Your task to perform on an android device: Search for flights from NYC to Barcelona Image 0: 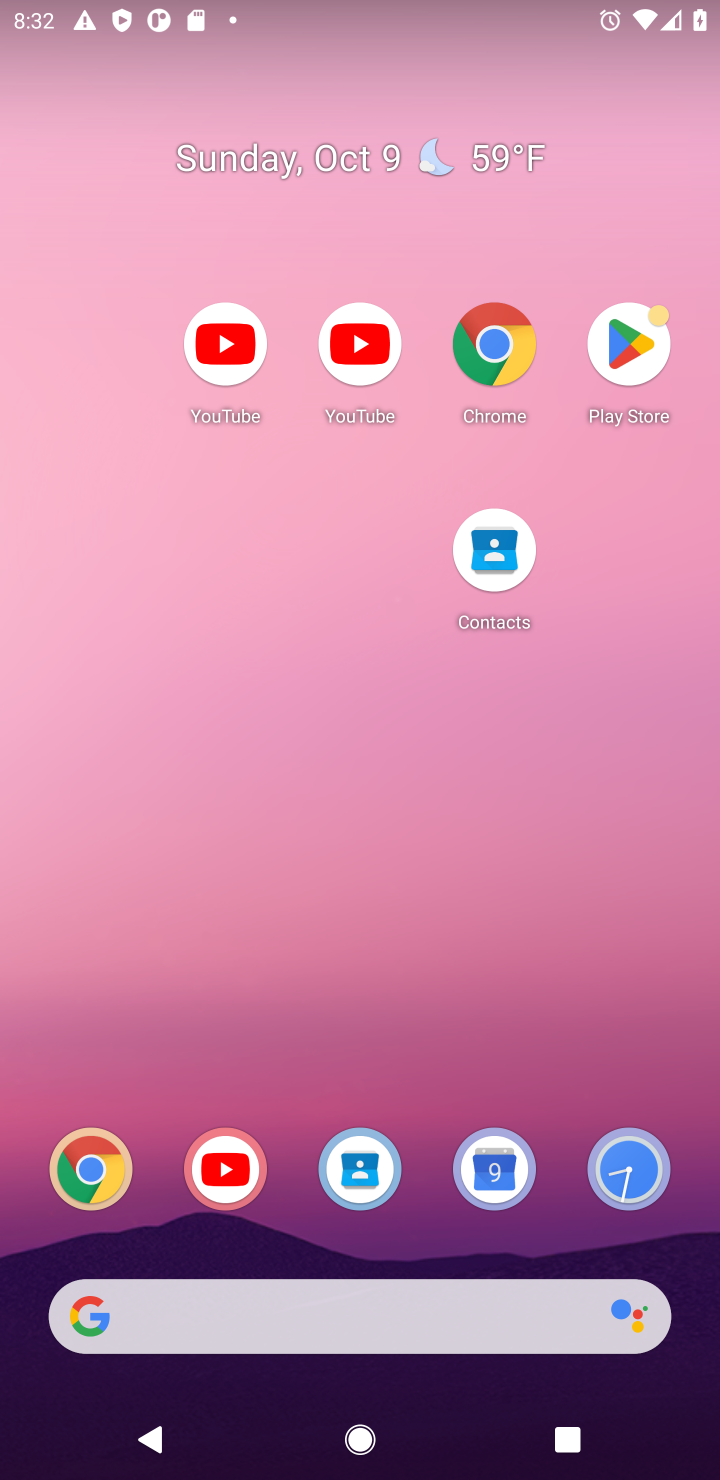
Step 0: drag from (432, 1247) to (279, 108)
Your task to perform on an android device: Search for flights from NYC to Barcelona Image 1: 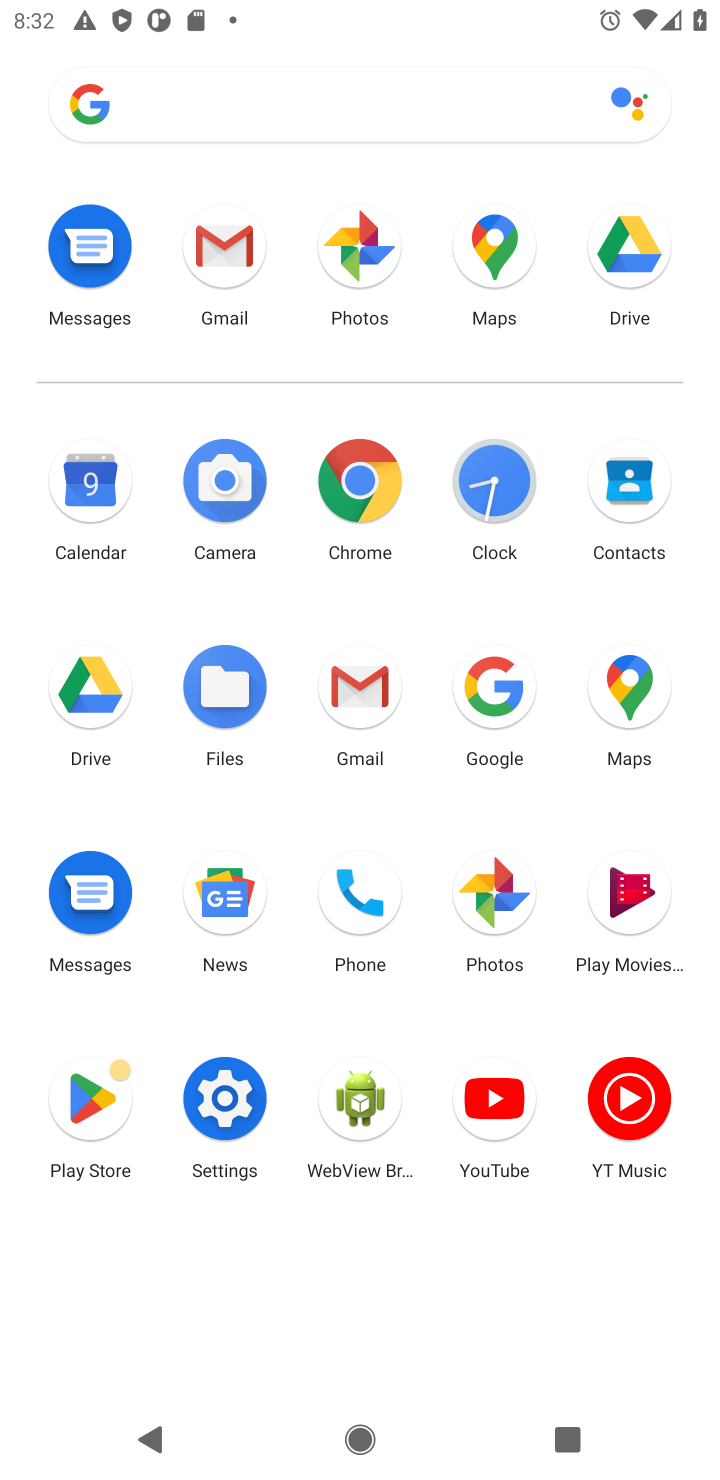
Step 1: click (357, 482)
Your task to perform on an android device: Search for flights from NYC to Barcelona Image 2: 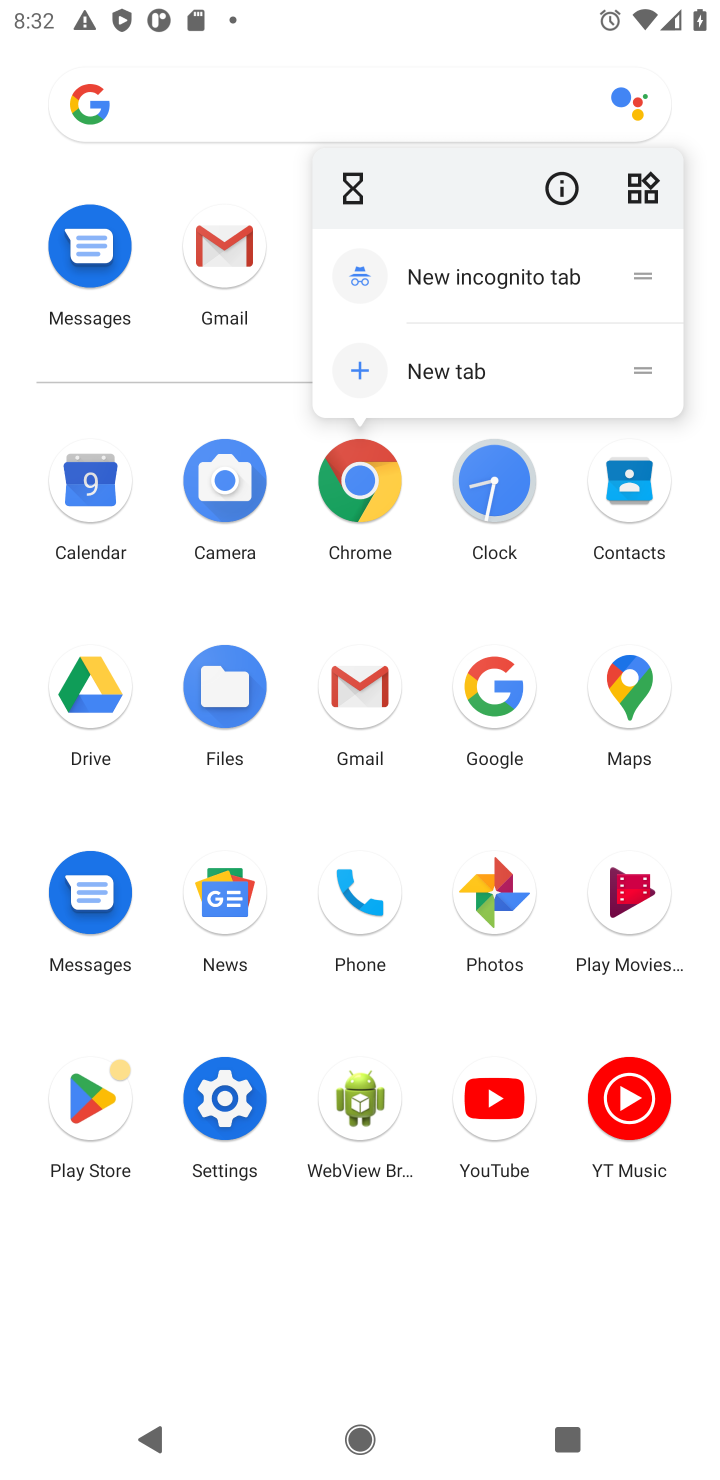
Step 2: click (357, 482)
Your task to perform on an android device: Search for flights from NYC to Barcelona Image 3: 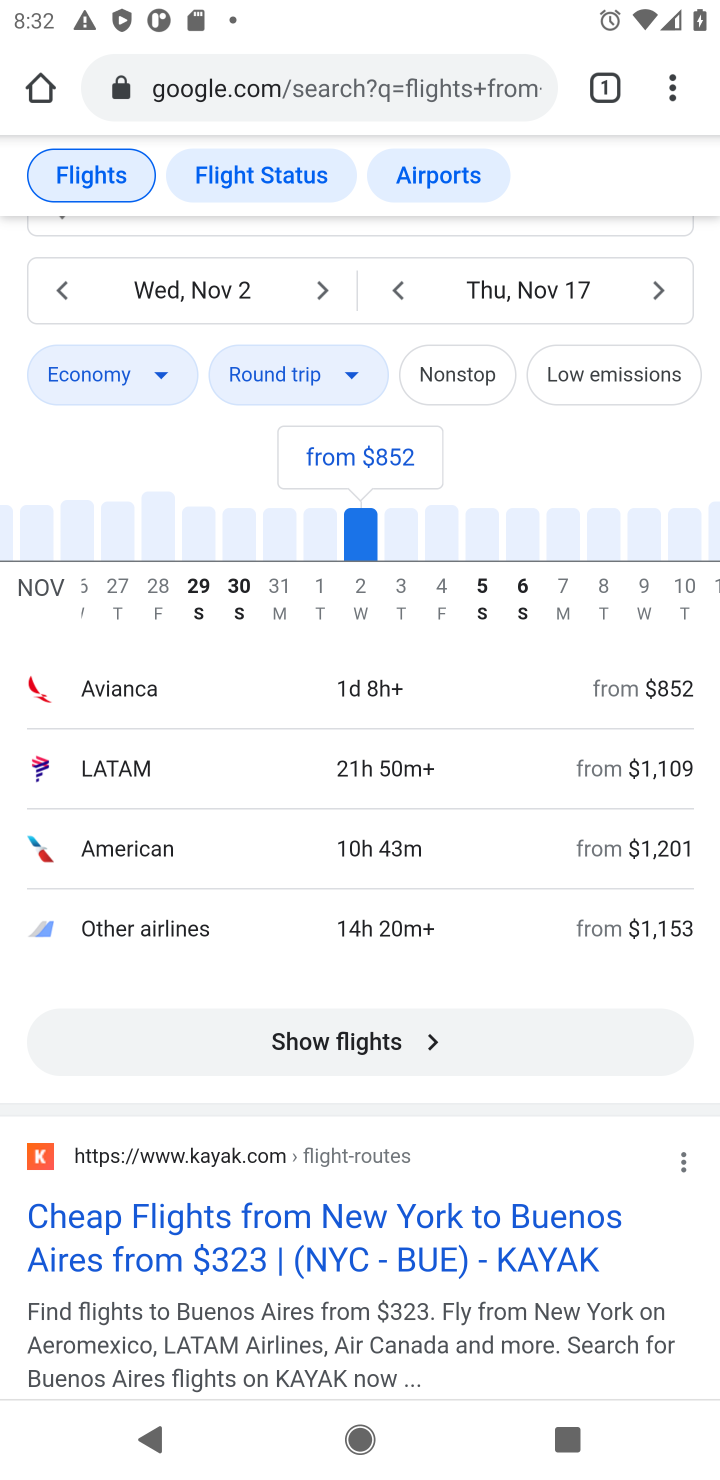
Step 3: click (328, 76)
Your task to perform on an android device: Search for flights from NYC to Barcelona Image 4: 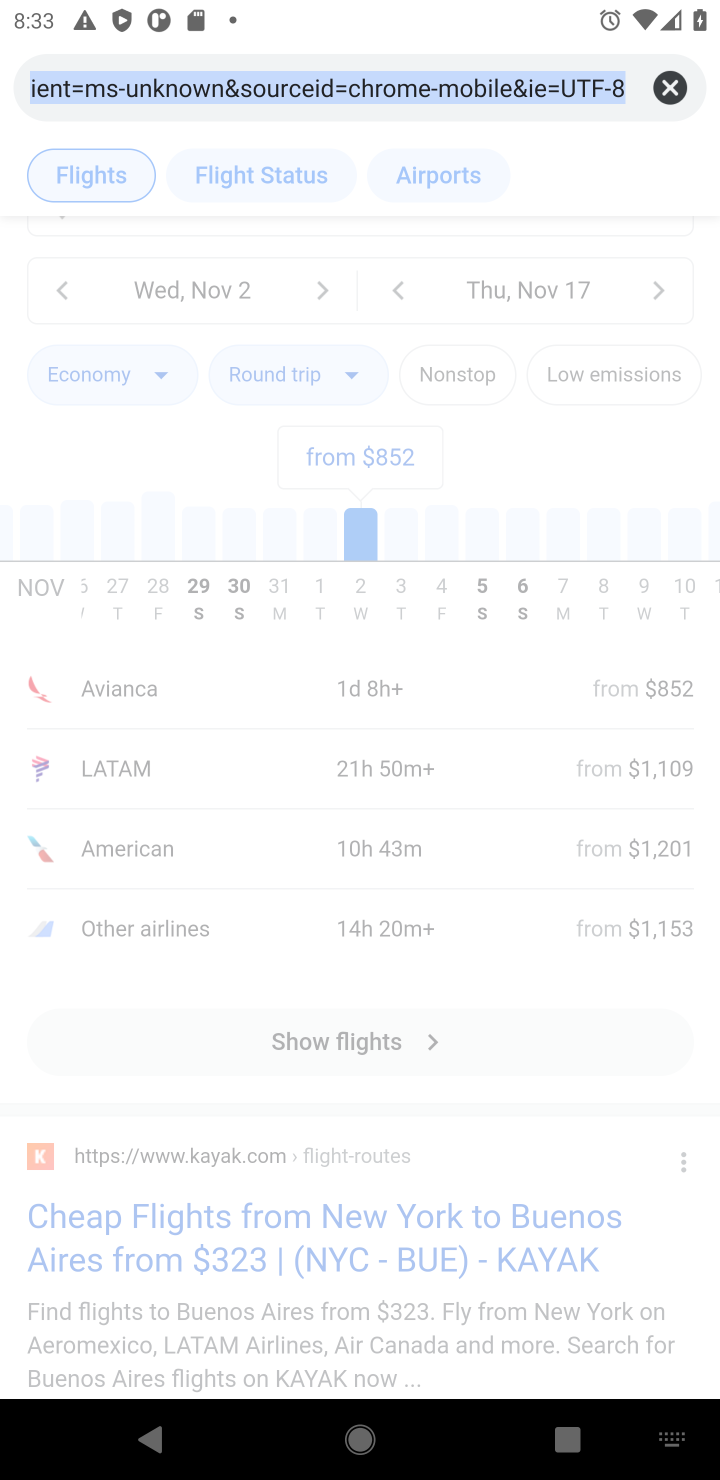
Step 4: type "flights from NYC to Barcelona"
Your task to perform on an android device: Search for flights from NYC to Barcelona Image 5: 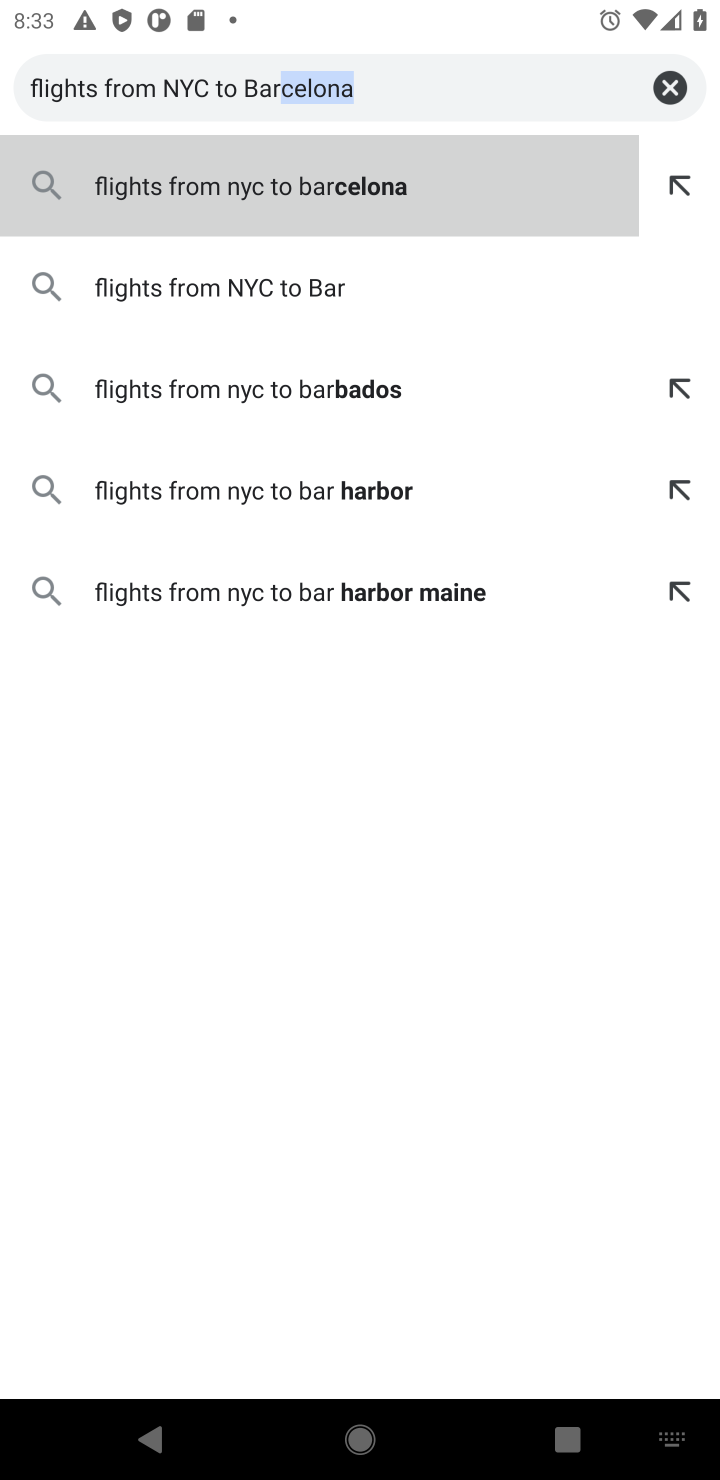
Step 5: click (369, 186)
Your task to perform on an android device: Search for flights from NYC to Barcelona Image 6: 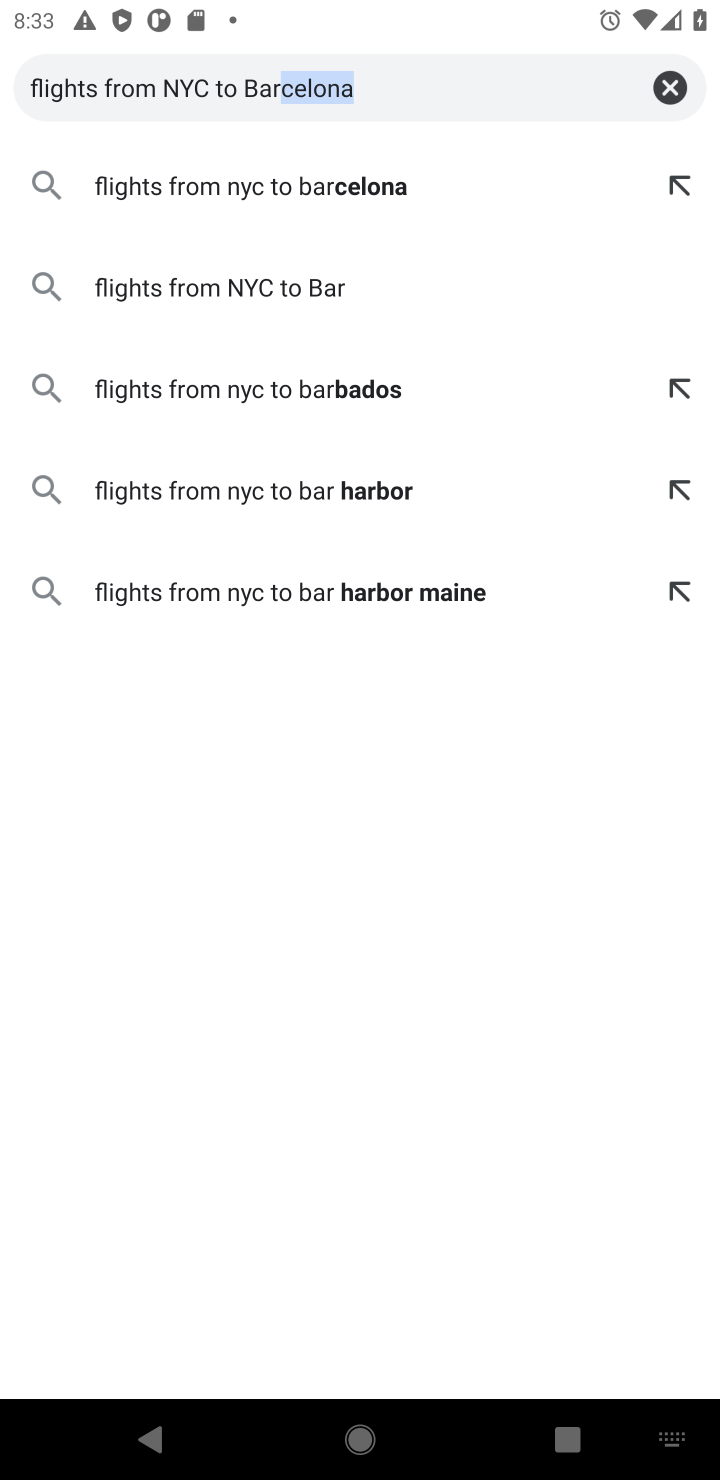
Step 6: click (369, 186)
Your task to perform on an android device: Search for flights from NYC to Barcelona Image 7: 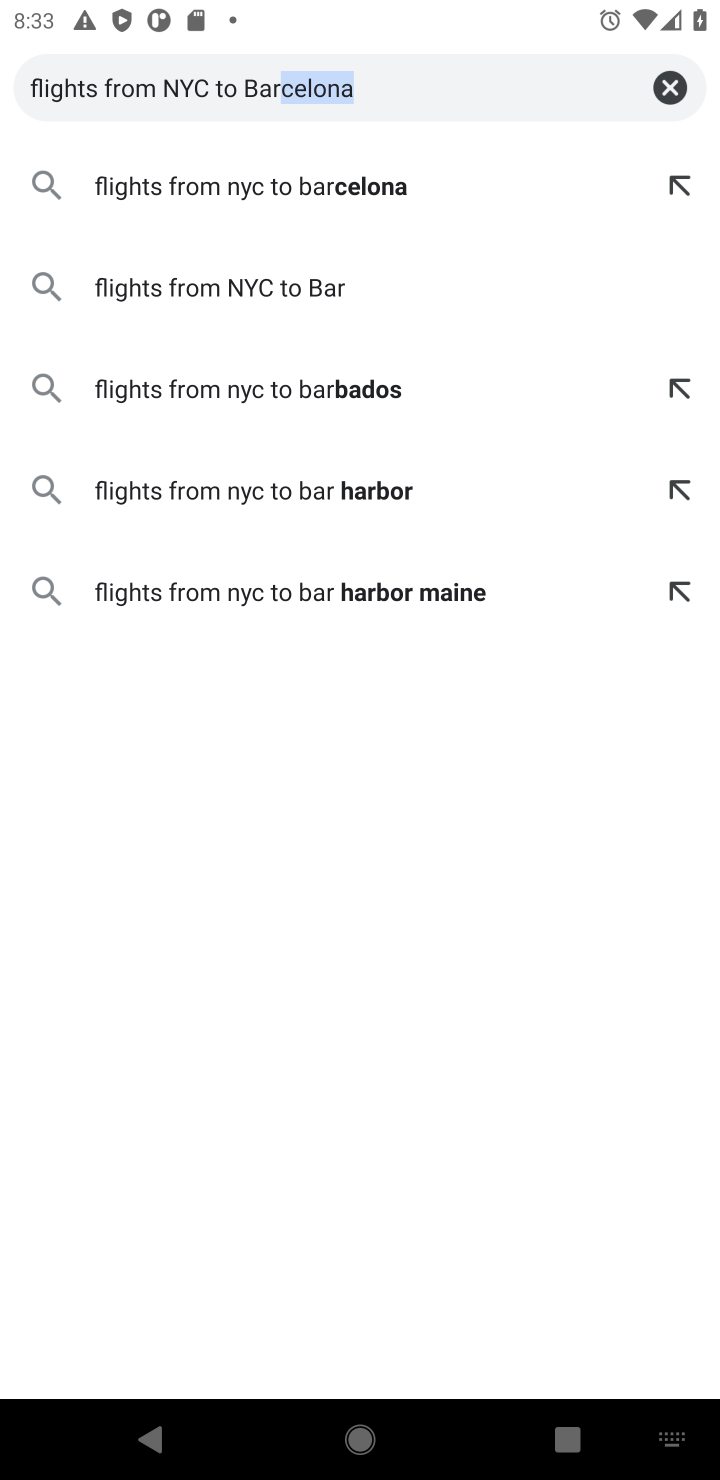
Step 7: click (194, 177)
Your task to perform on an android device: Search for flights from NYC to Barcelona Image 8: 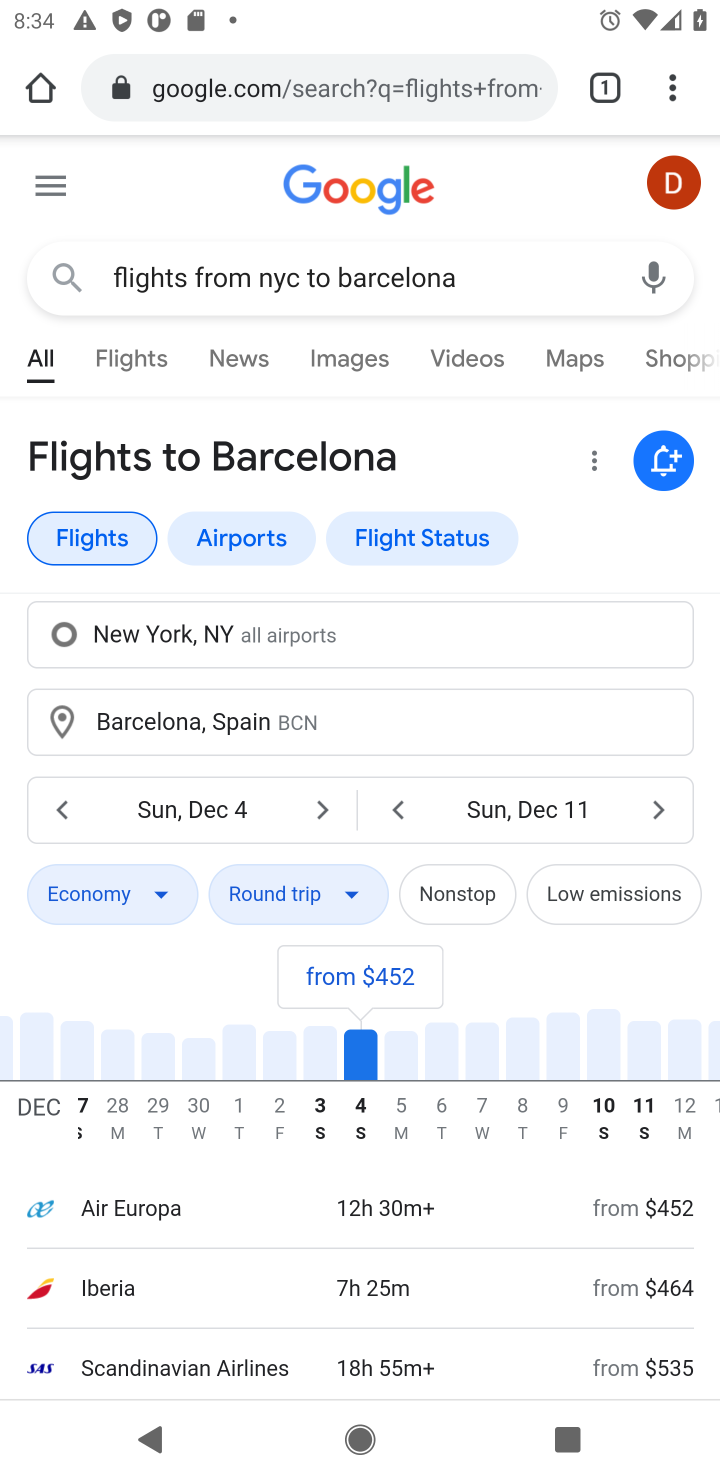
Step 8: task complete